Your task to perform on an android device: turn on wifi Image 0: 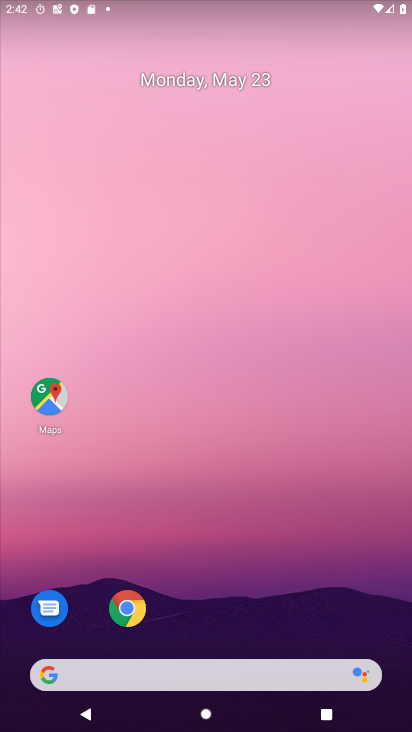
Step 0: drag from (195, 610) to (262, 2)
Your task to perform on an android device: turn on wifi Image 1: 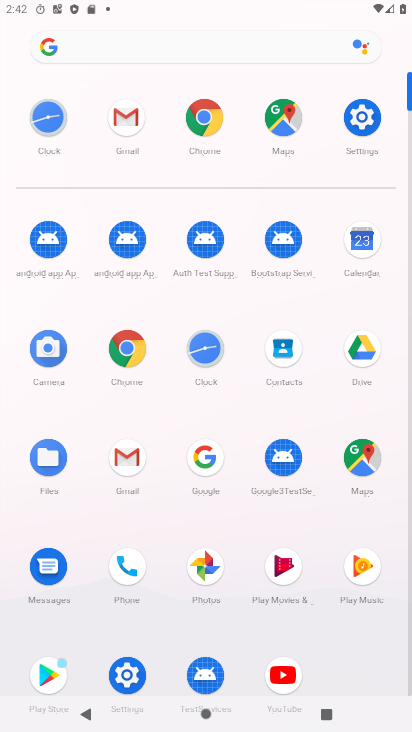
Step 1: click (359, 118)
Your task to perform on an android device: turn on wifi Image 2: 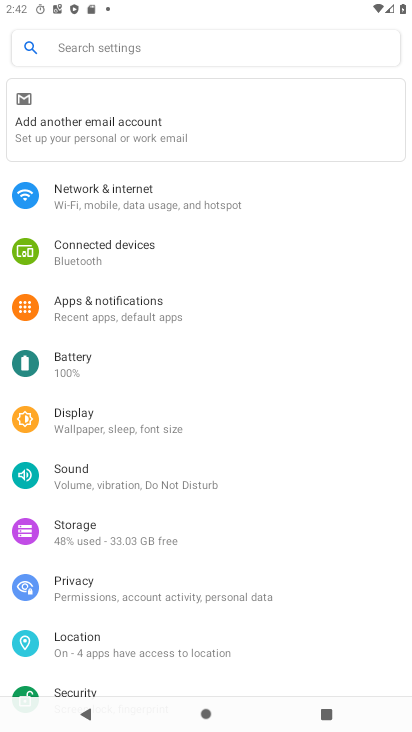
Step 2: click (132, 198)
Your task to perform on an android device: turn on wifi Image 3: 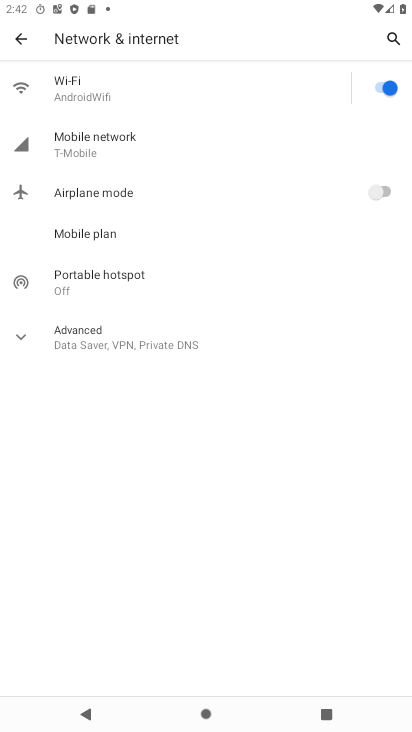
Step 3: task complete